Your task to perform on an android device: empty trash in google photos Image 0: 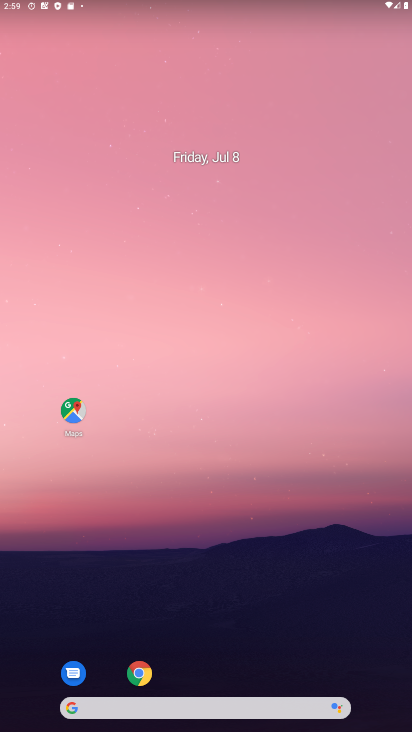
Step 0: drag from (218, 566) to (222, 336)
Your task to perform on an android device: empty trash in google photos Image 1: 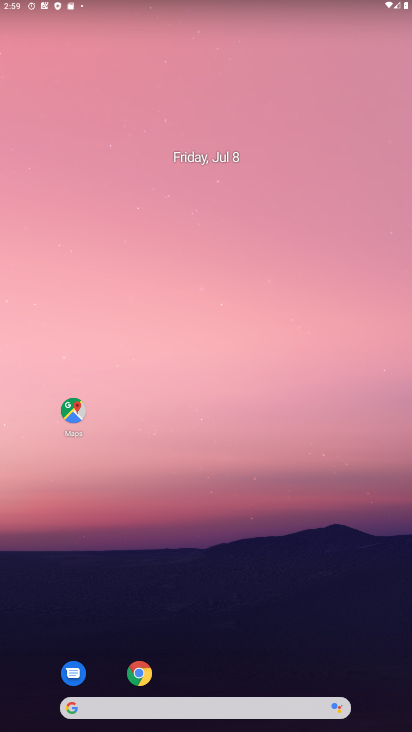
Step 1: drag from (205, 694) to (191, 245)
Your task to perform on an android device: empty trash in google photos Image 2: 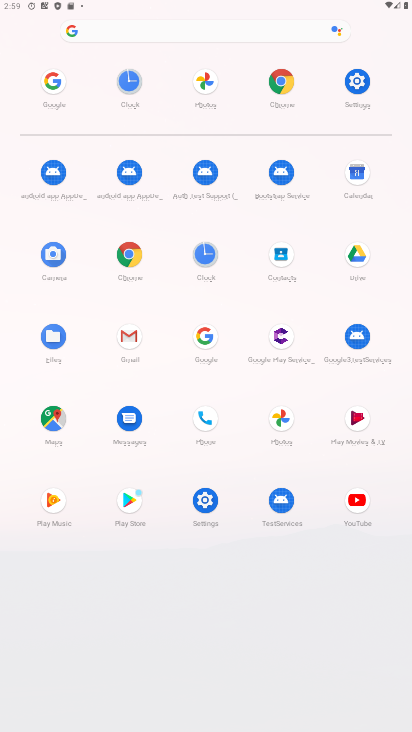
Step 2: click (282, 409)
Your task to perform on an android device: empty trash in google photos Image 3: 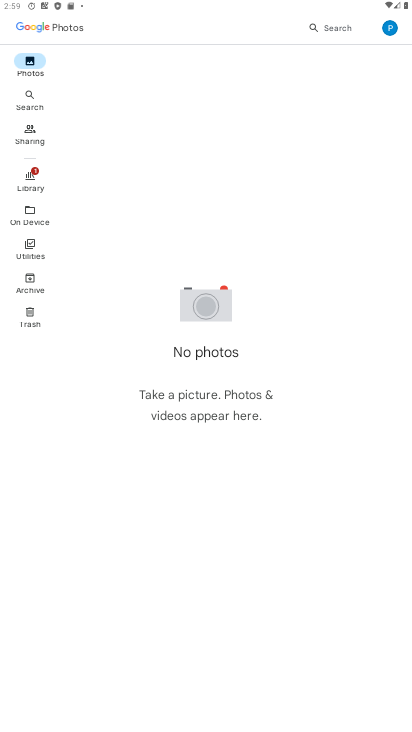
Step 3: click (30, 319)
Your task to perform on an android device: empty trash in google photos Image 4: 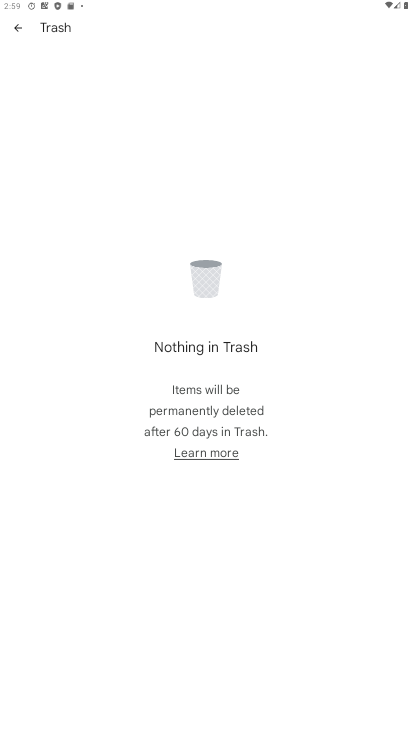
Step 4: task complete